Your task to perform on an android device: open chrome and create a bookmark for the current page Image 0: 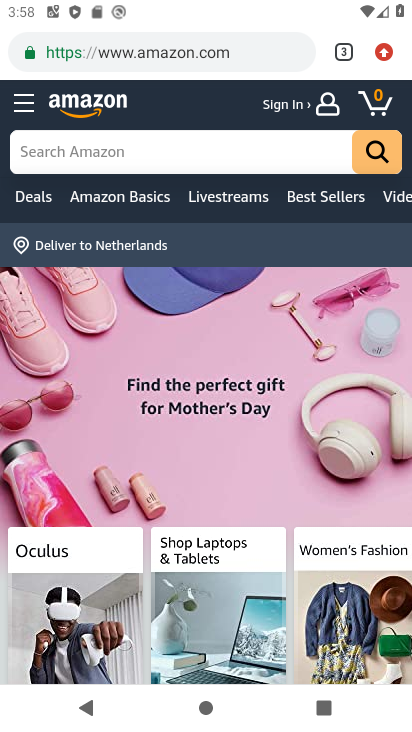
Step 0: click (381, 56)
Your task to perform on an android device: open chrome and create a bookmark for the current page Image 1: 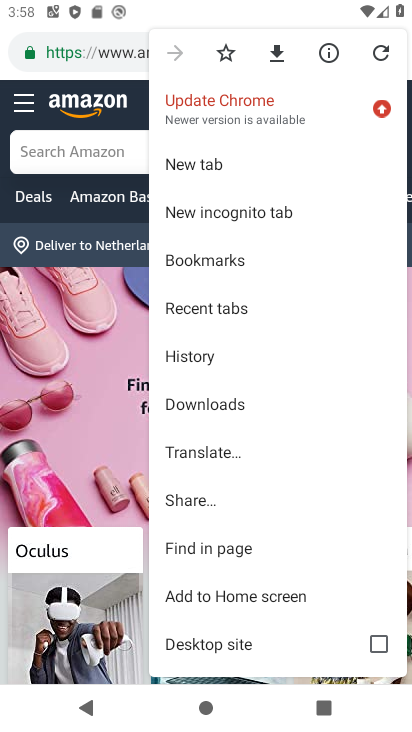
Step 1: click (225, 52)
Your task to perform on an android device: open chrome and create a bookmark for the current page Image 2: 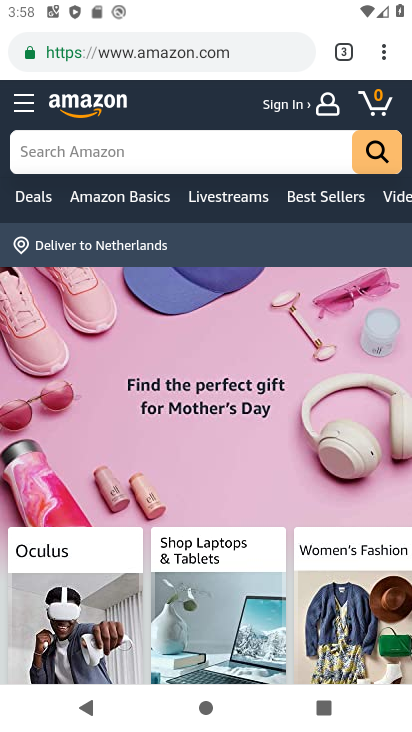
Step 2: task complete